Your task to perform on an android device: toggle improve location accuracy Image 0: 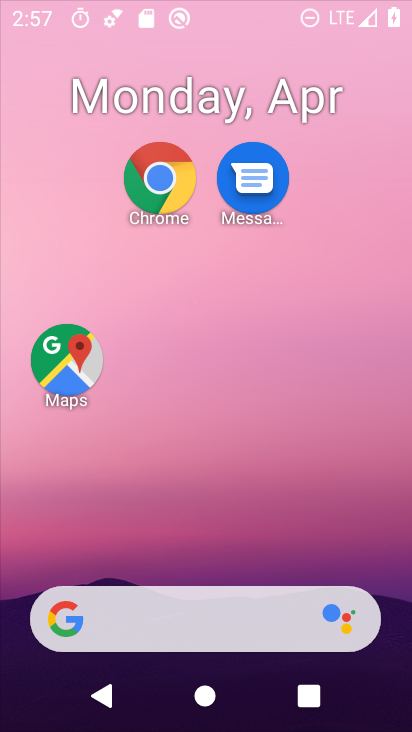
Step 0: drag from (259, 76) to (306, 28)
Your task to perform on an android device: toggle improve location accuracy Image 1: 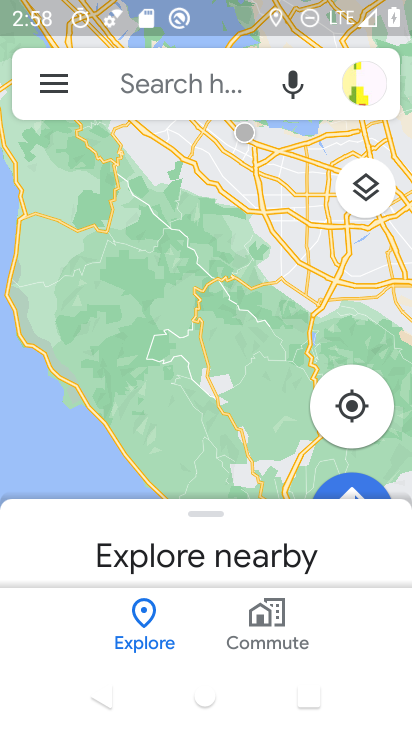
Step 1: press home button
Your task to perform on an android device: toggle improve location accuracy Image 2: 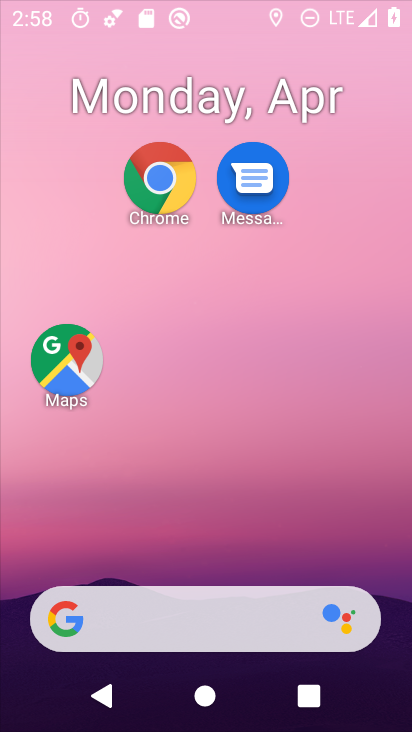
Step 2: press home button
Your task to perform on an android device: toggle improve location accuracy Image 3: 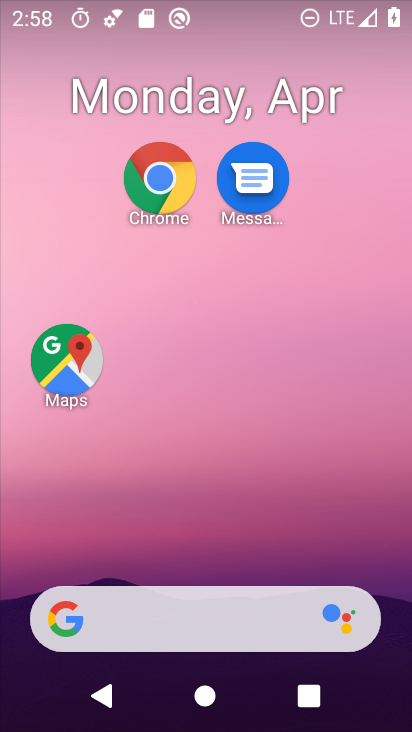
Step 3: drag from (307, 533) to (264, 20)
Your task to perform on an android device: toggle improve location accuracy Image 4: 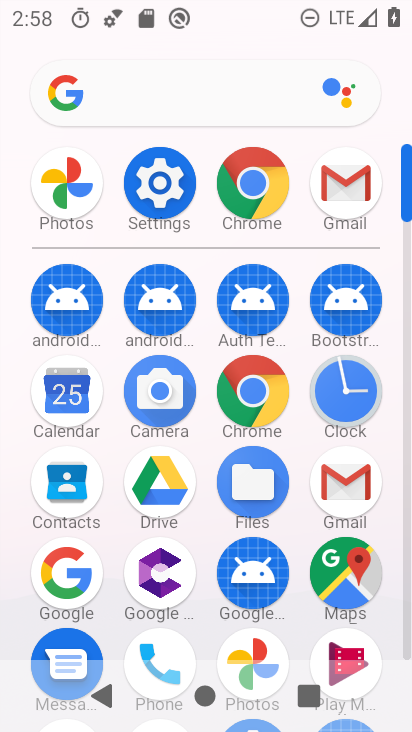
Step 4: drag from (194, 605) to (213, 185)
Your task to perform on an android device: toggle improve location accuracy Image 5: 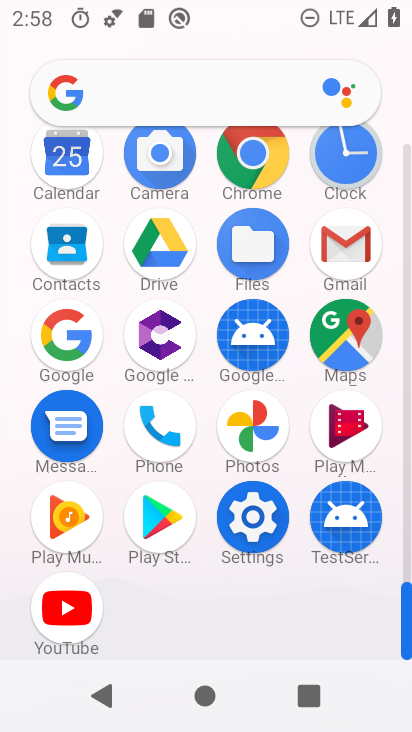
Step 5: click (262, 522)
Your task to perform on an android device: toggle improve location accuracy Image 6: 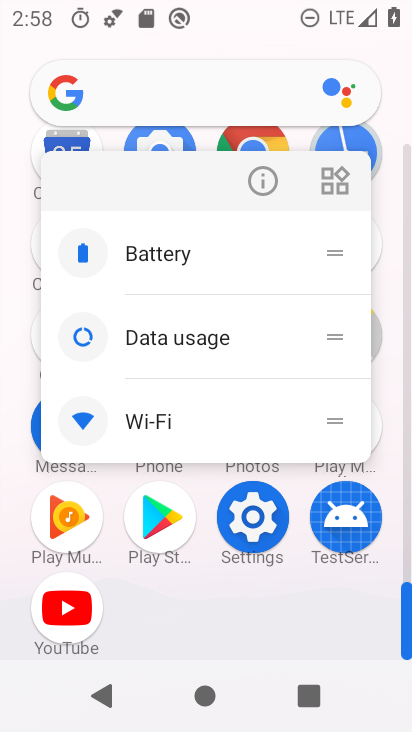
Step 6: click (262, 522)
Your task to perform on an android device: toggle improve location accuracy Image 7: 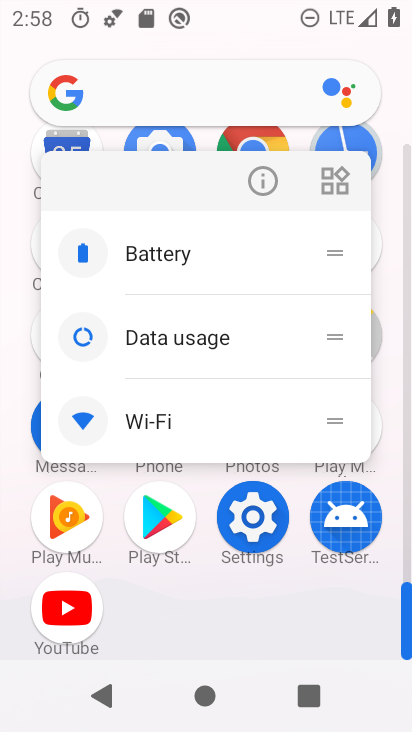
Step 7: click (262, 522)
Your task to perform on an android device: toggle improve location accuracy Image 8: 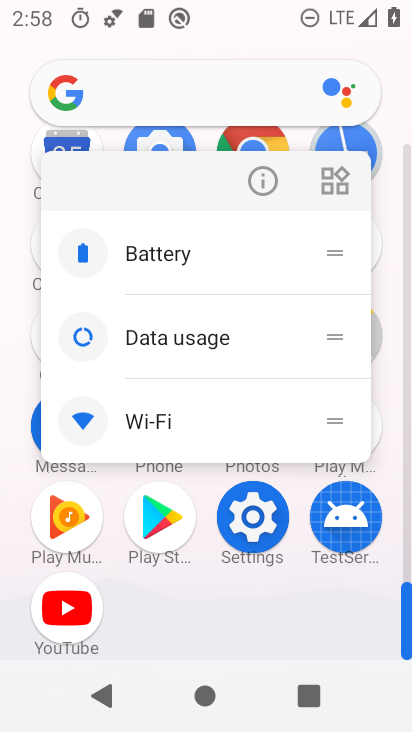
Step 8: click (262, 522)
Your task to perform on an android device: toggle improve location accuracy Image 9: 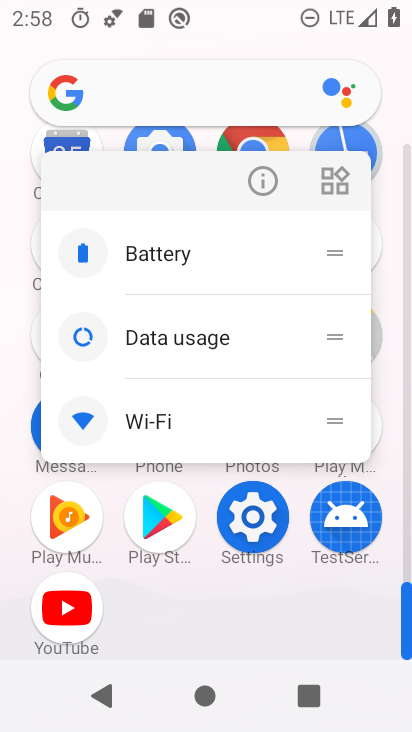
Step 9: click (262, 522)
Your task to perform on an android device: toggle improve location accuracy Image 10: 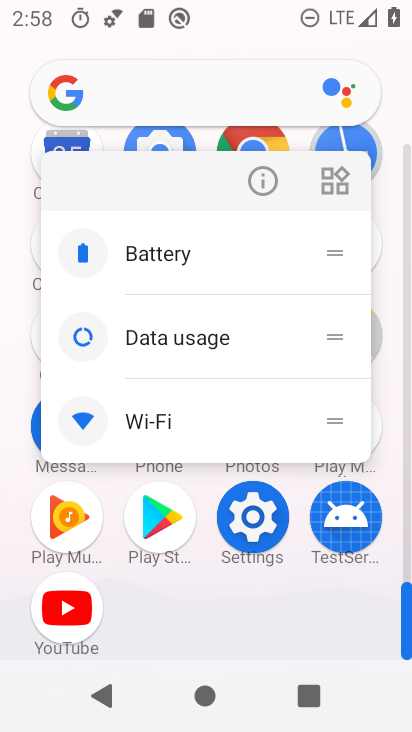
Step 10: click (262, 522)
Your task to perform on an android device: toggle improve location accuracy Image 11: 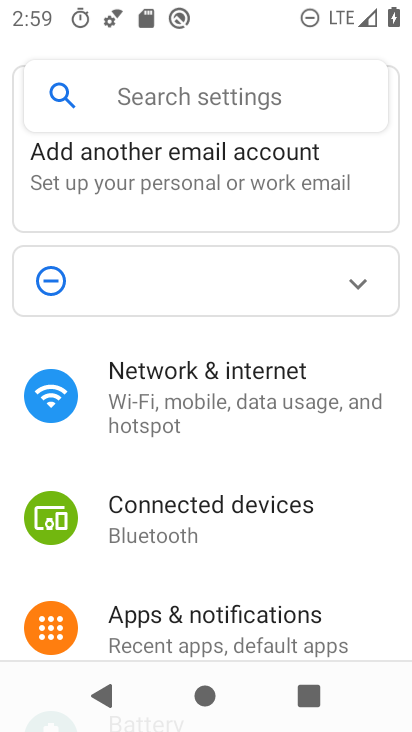
Step 11: drag from (242, 627) to (231, 130)
Your task to perform on an android device: toggle improve location accuracy Image 12: 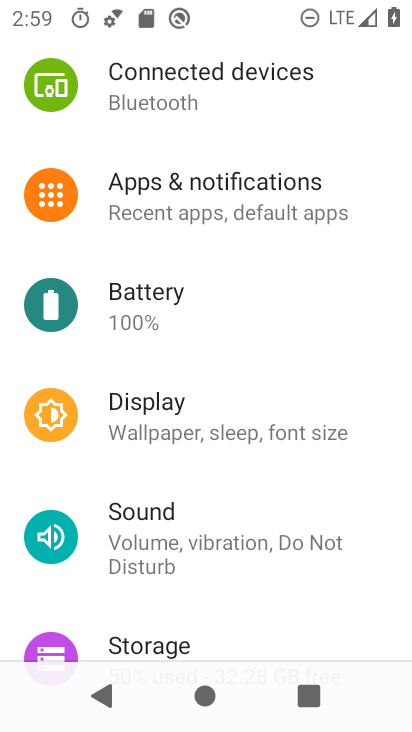
Step 12: drag from (252, 612) to (284, 93)
Your task to perform on an android device: toggle improve location accuracy Image 13: 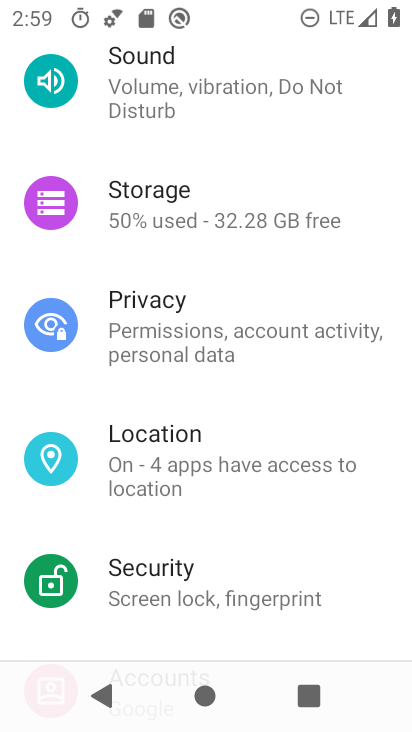
Step 13: click (268, 454)
Your task to perform on an android device: toggle improve location accuracy Image 14: 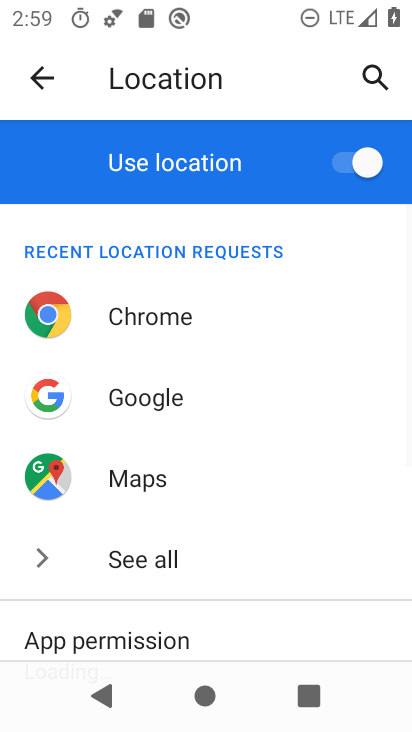
Step 14: drag from (240, 642) to (303, 166)
Your task to perform on an android device: toggle improve location accuracy Image 15: 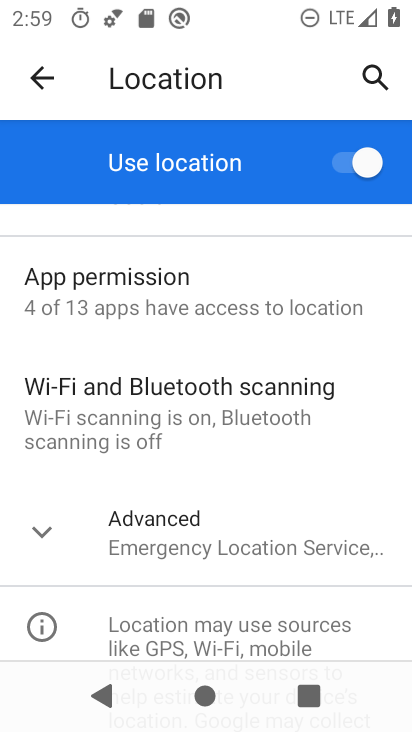
Step 15: drag from (261, 385) to (291, 294)
Your task to perform on an android device: toggle improve location accuracy Image 16: 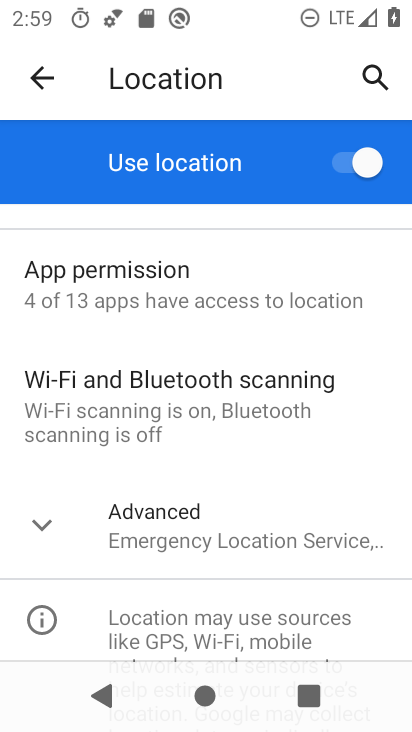
Step 16: click (289, 545)
Your task to perform on an android device: toggle improve location accuracy Image 17: 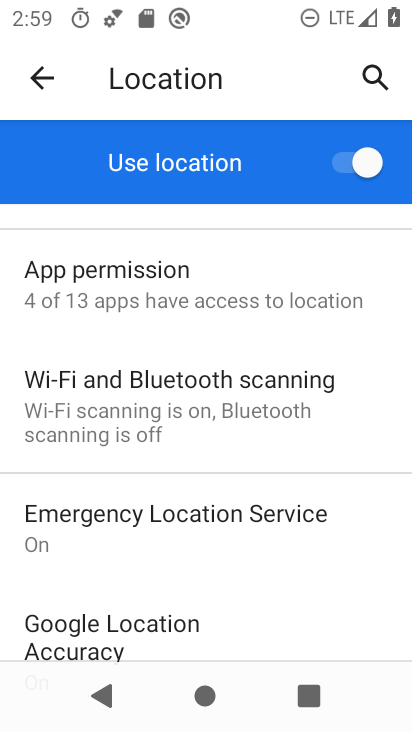
Step 17: drag from (259, 606) to (286, 204)
Your task to perform on an android device: toggle improve location accuracy Image 18: 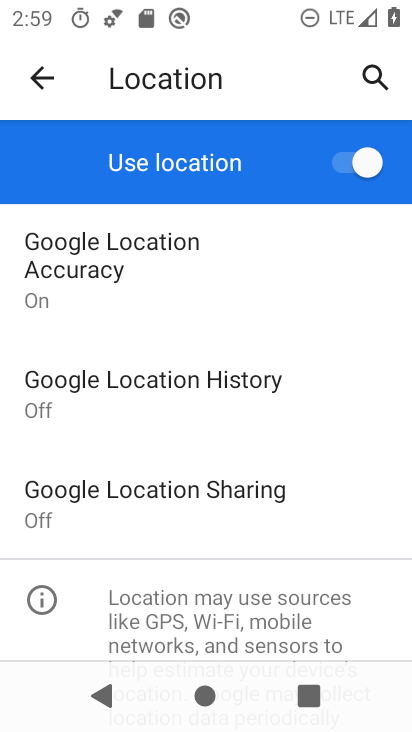
Step 18: click (150, 255)
Your task to perform on an android device: toggle improve location accuracy Image 19: 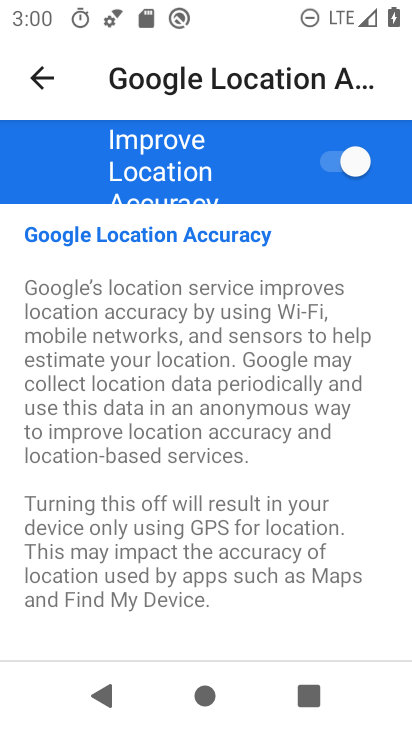
Step 19: click (333, 166)
Your task to perform on an android device: toggle improve location accuracy Image 20: 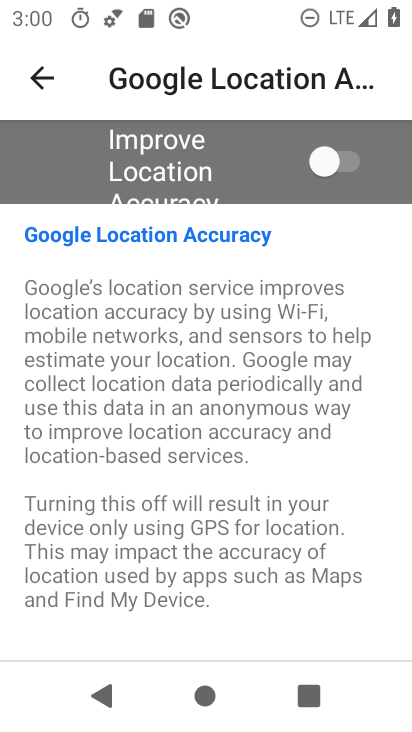
Step 20: task complete